Your task to perform on an android device: Search for duracell triple a on ebay.com, select the first entry, and add it to the cart. Image 0: 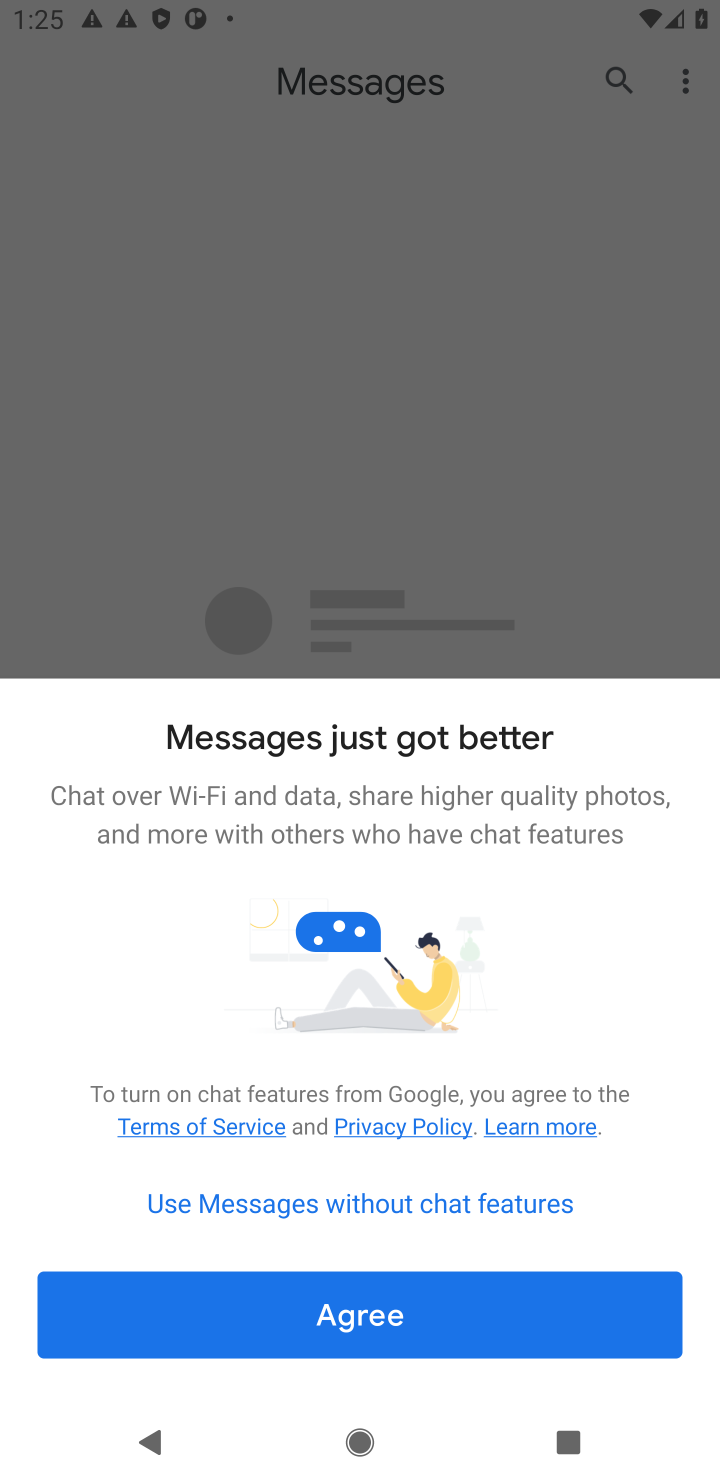
Step 0: press home button
Your task to perform on an android device: Search for duracell triple a on ebay.com, select the first entry, and add it to the cart. Image 1: 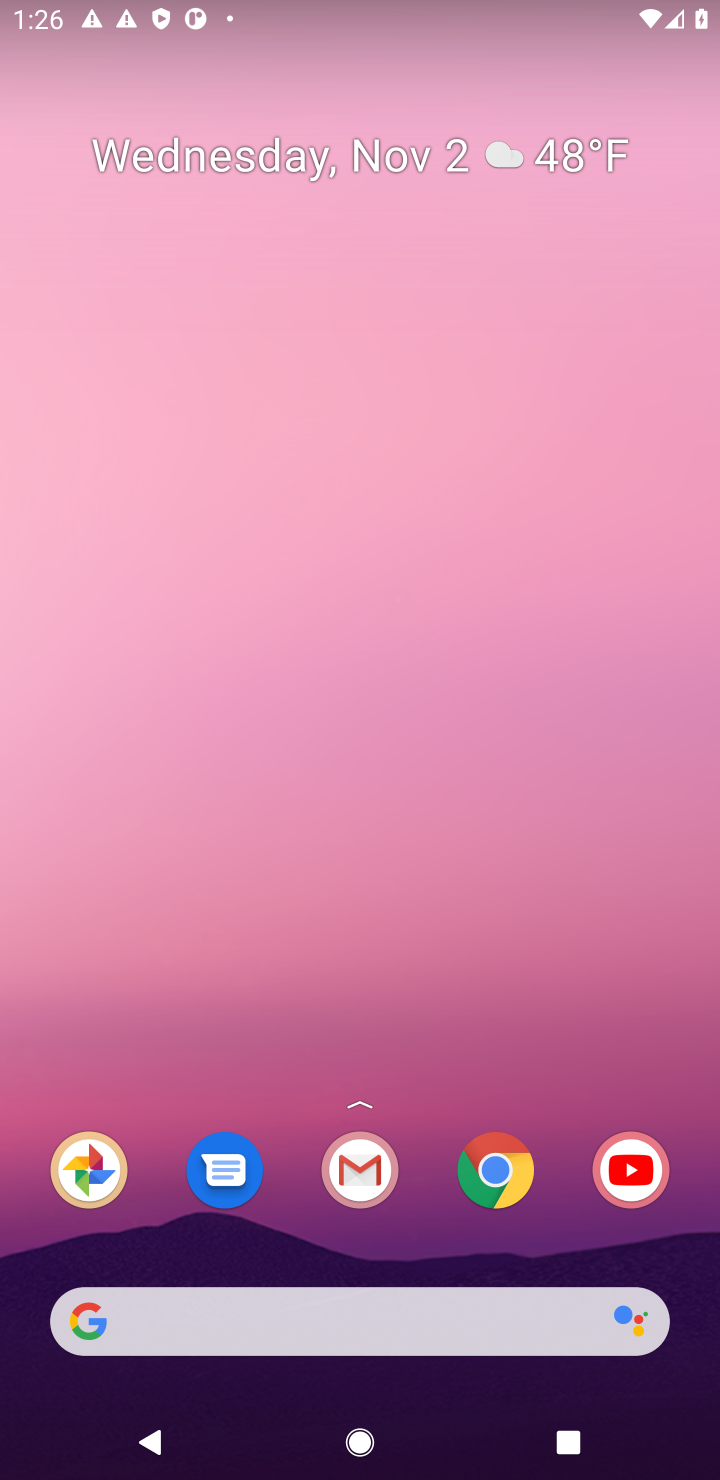
Step 1: click (501, 1177)
Your task to perform on an android device: Search for duracell triple a on ebay.com, select the first entry, and add it to the cart. Image 2: 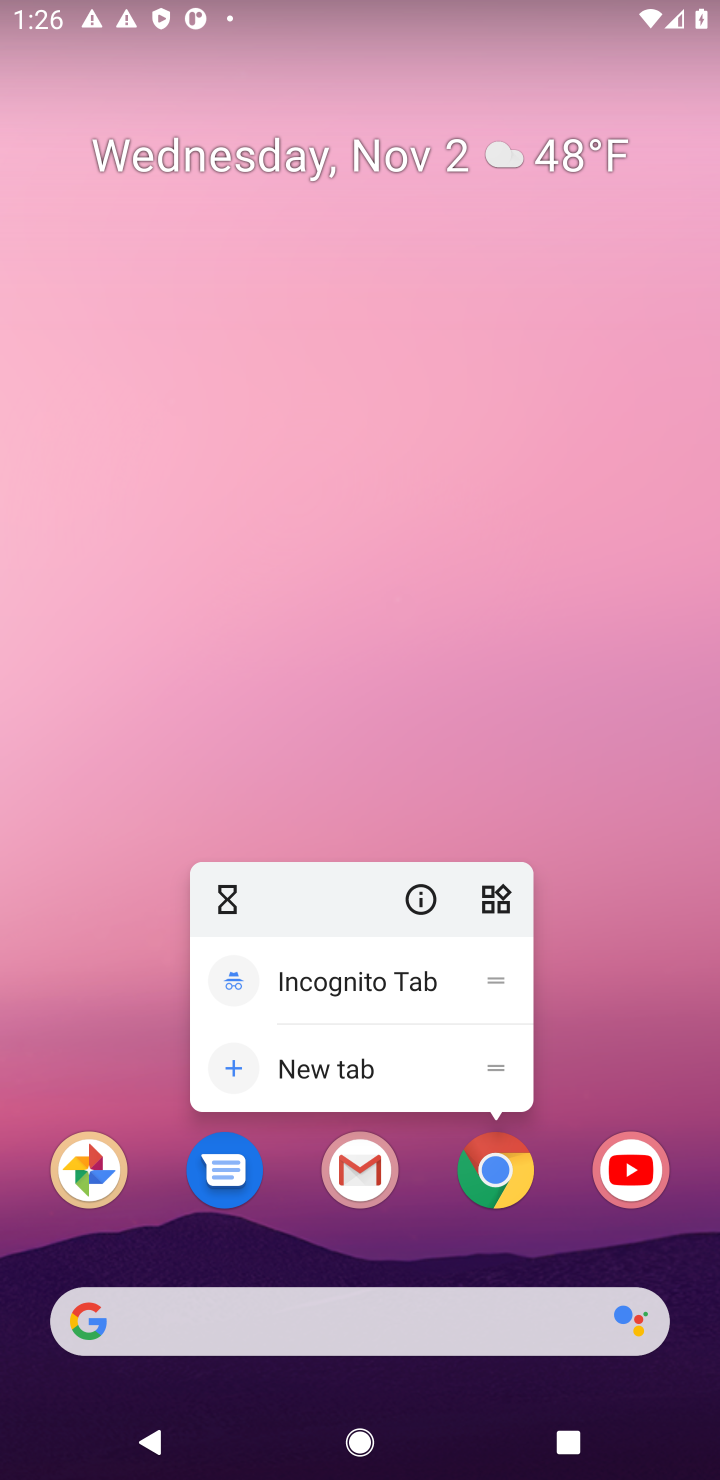
Step 2: click (477, 1144)
Your task to perform on an android device: Search for duracell triple a on ebay.com, select the first entry, and add it to the cart. Image 3: 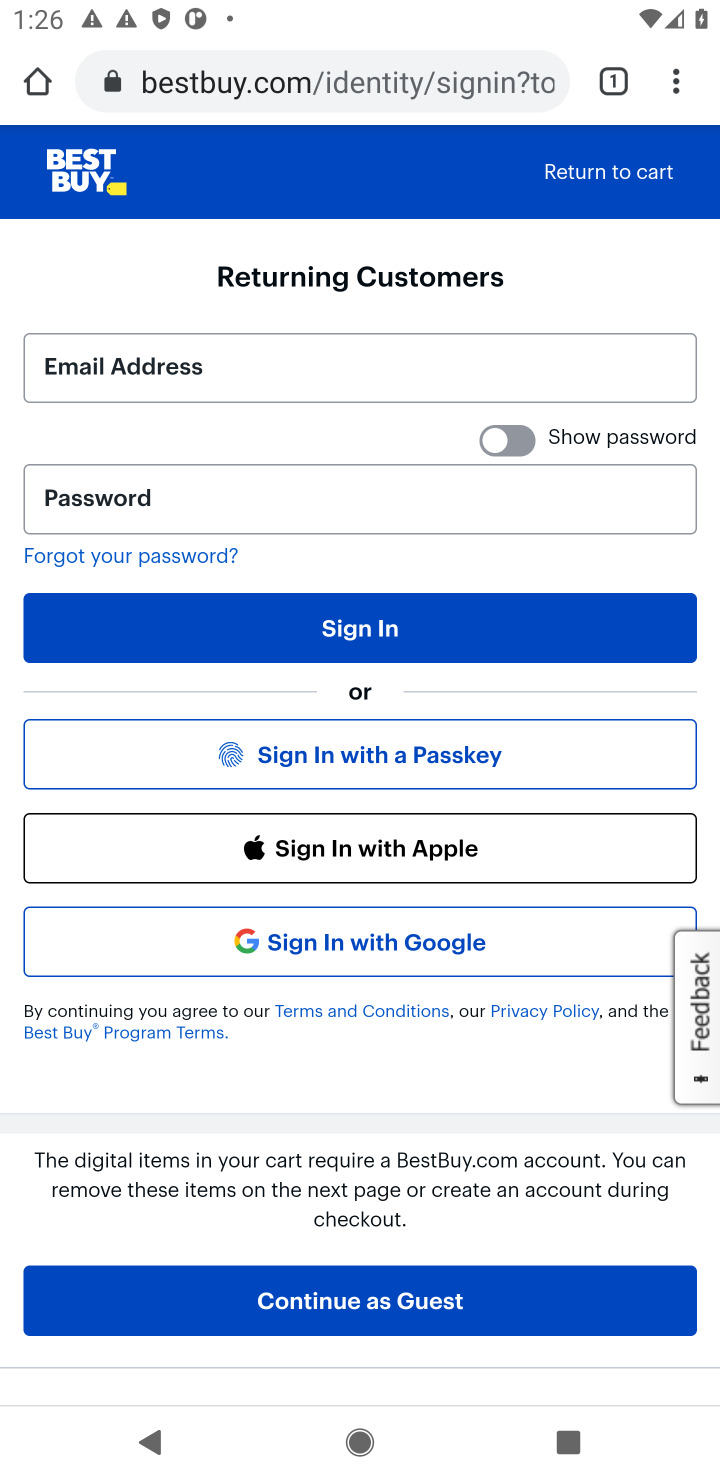
Step 3: click (532, 69)
Your task to perform on an android device: Search for duracell triple a on ebay.com, select the first entry, and add it to the cart. Image 4: 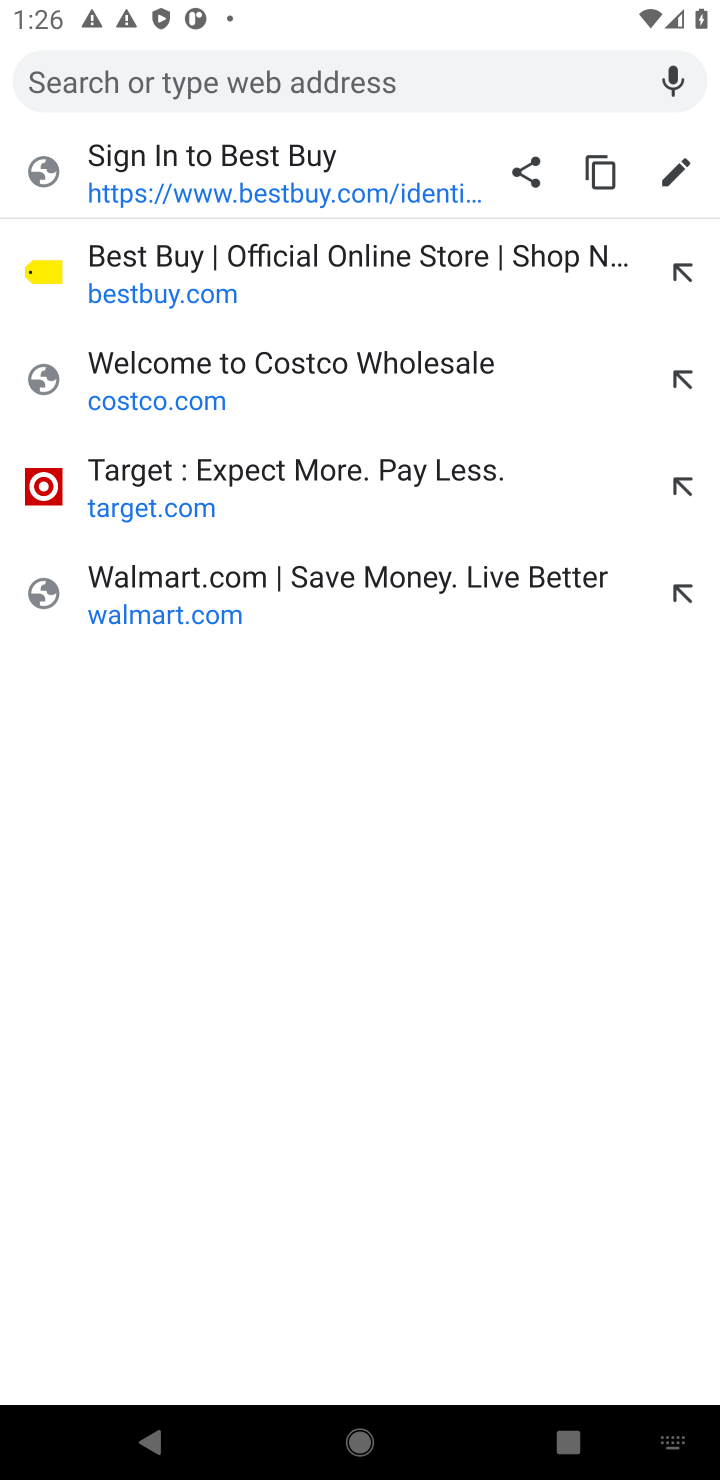
Step 4: type "ebay.com"
Your task to perform on an android device: Search for duracell triple a on ebay.com, select the first entry, and add it to the cart. Image 5: 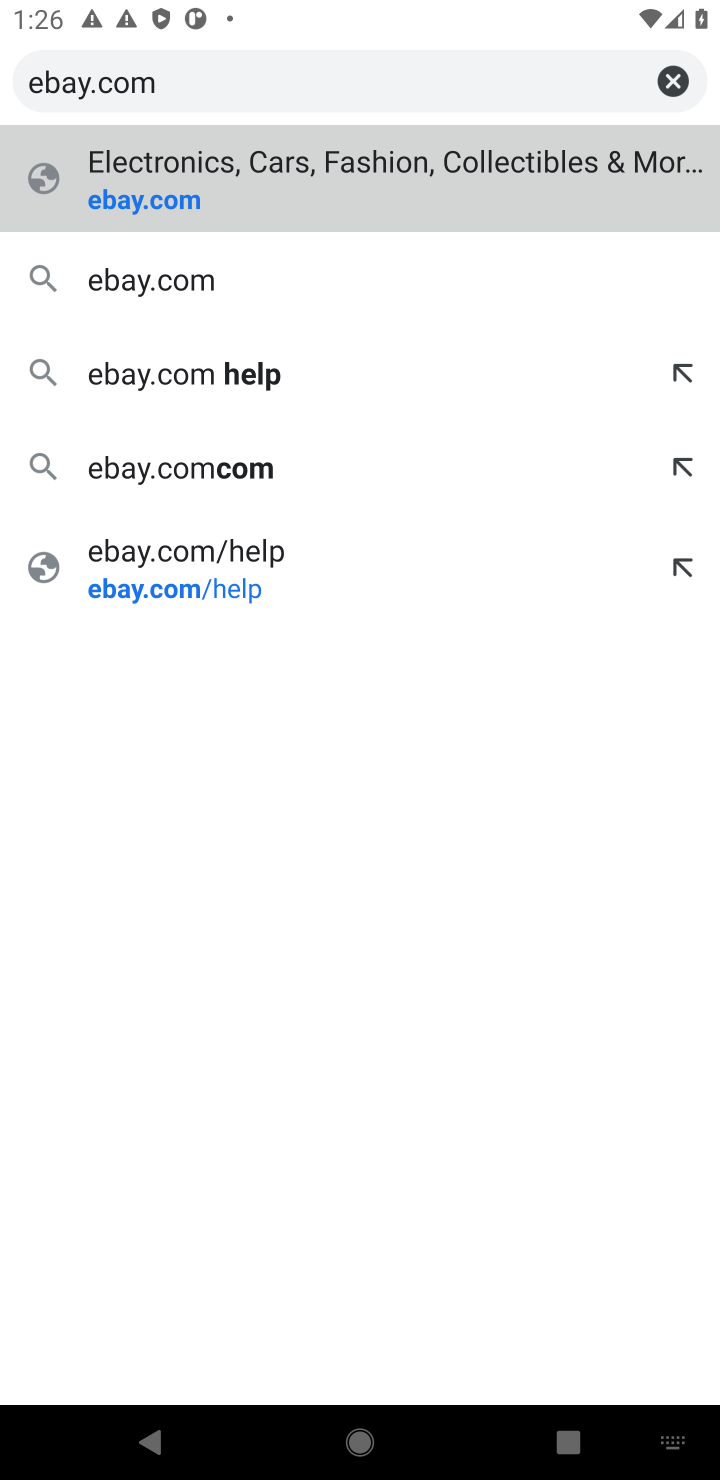
Step 5: click (424, 203)
Your task to perform on an android device: Search for duracell triple a on ebay.com, select the first entry, and add it to the cart. Image 6: 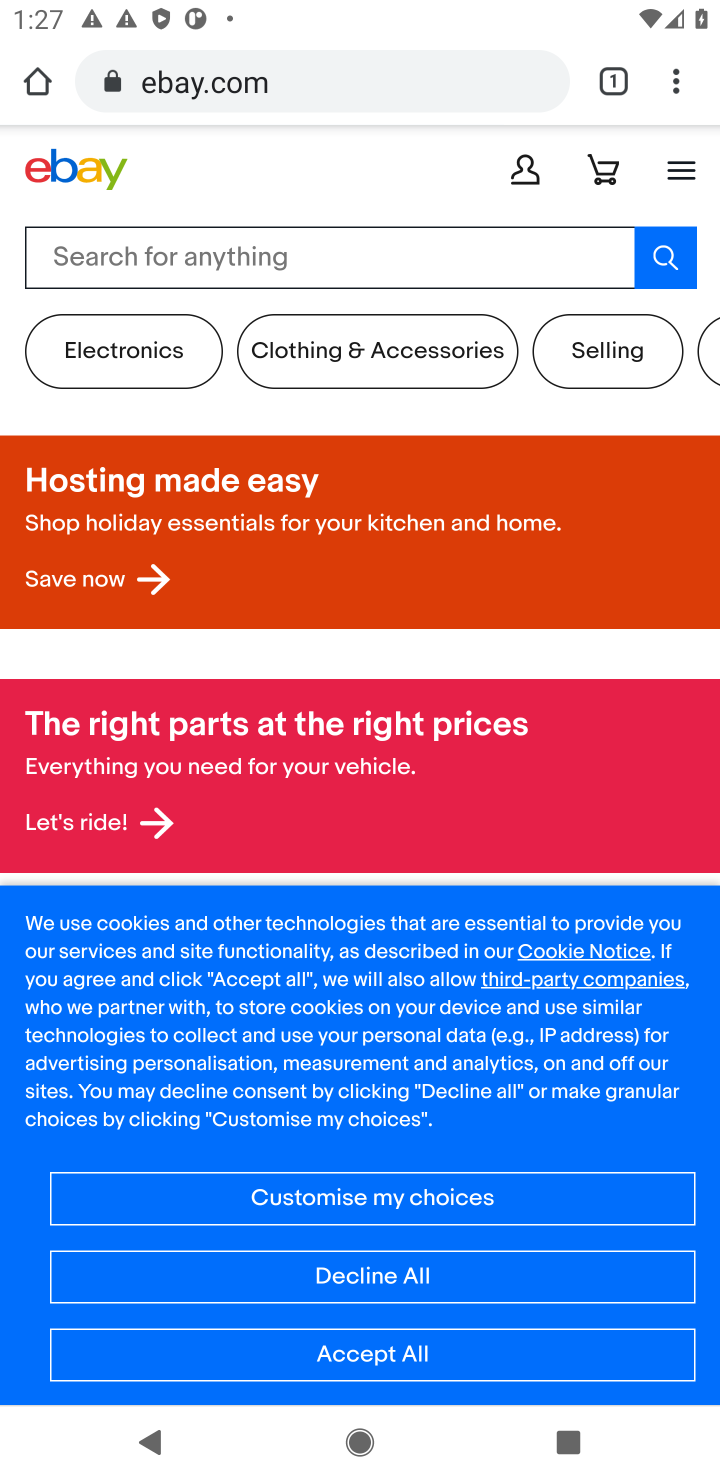
Step 6: click (376, 267)
Your task to perform on an android device: Search for duracell triple a on ebay.com, select the first entry, and add it to the cart. Image 7: 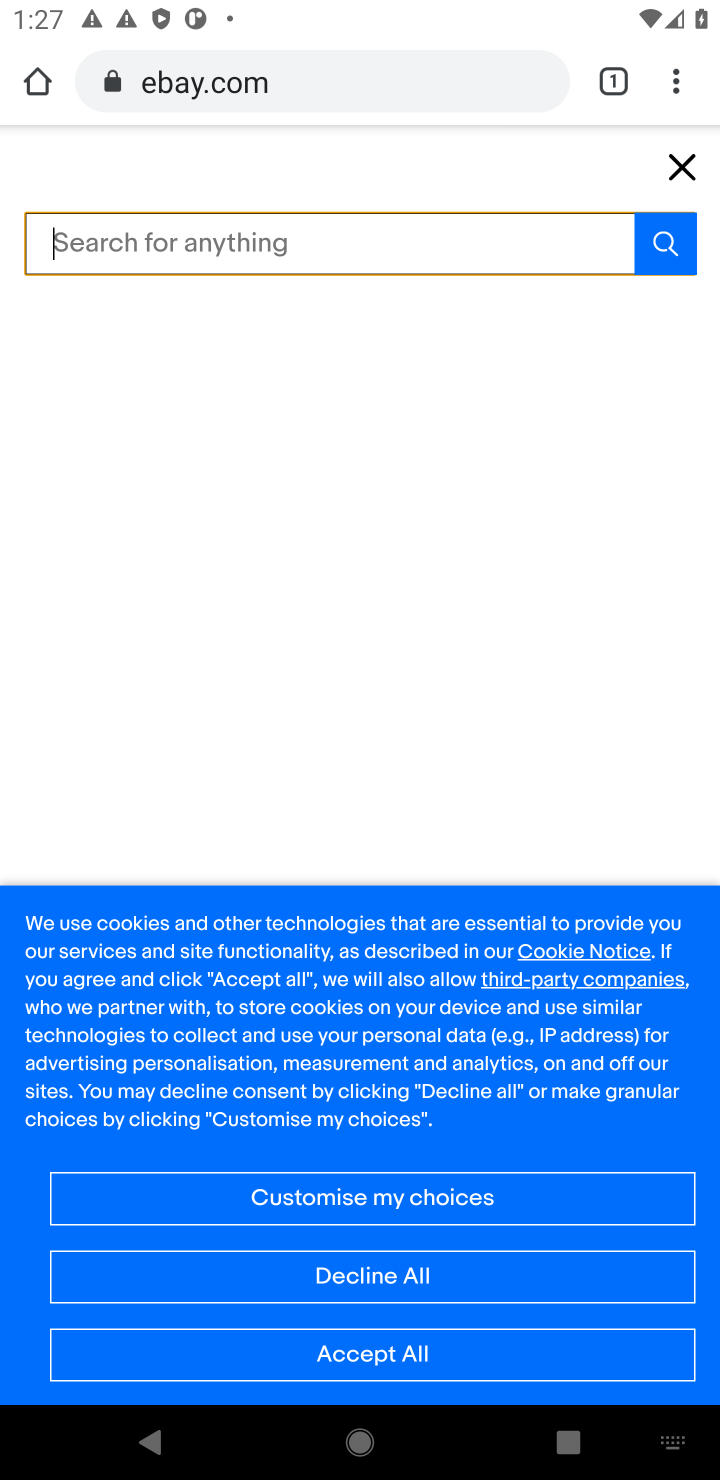
Step 7: type "duracell triple"
Your task to perform on an android device: Search for duracell triple a on ebay.com, select the first entry, and add it to the cart. Image 8: 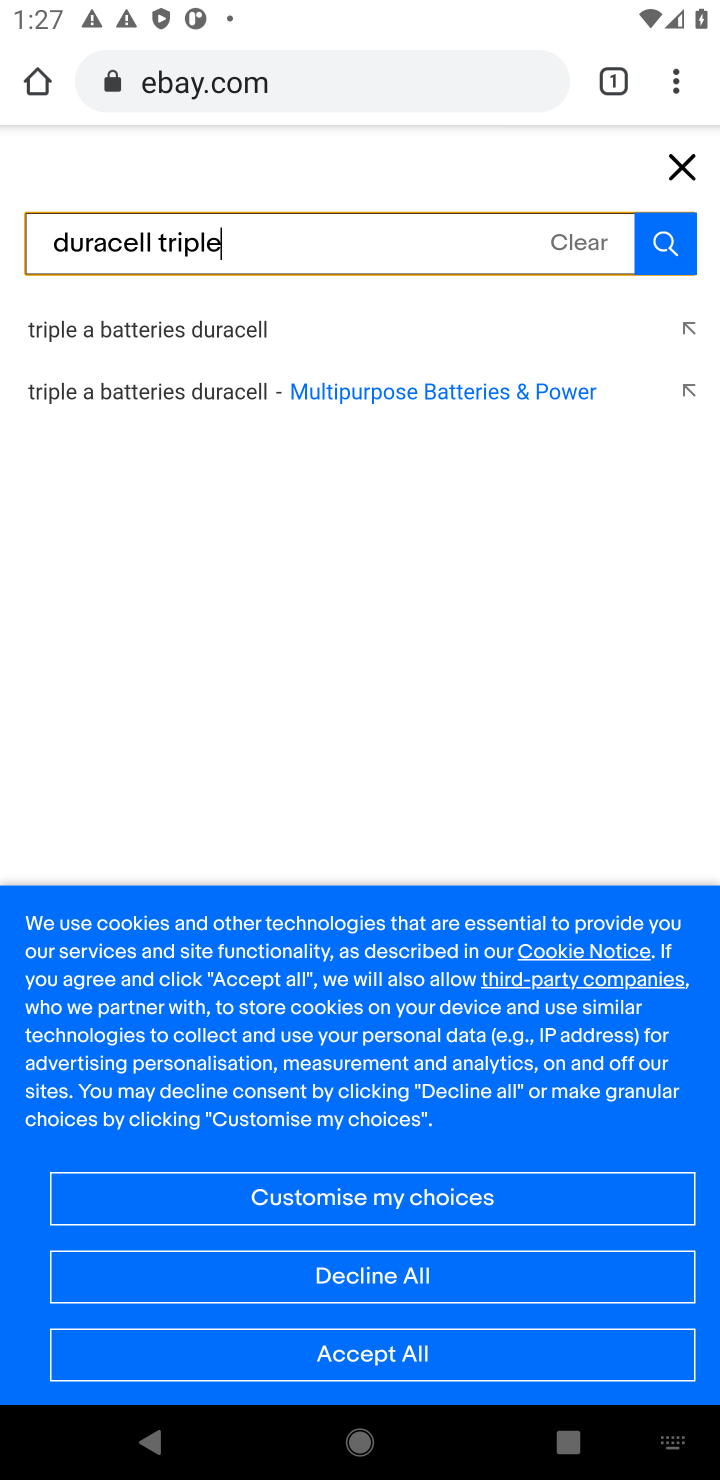
Step 8: click (662, 244)
Your task to perform on an android device: Search for duracell triple a on ebay.com, select the first entry, and add it to the cart. Image 9: 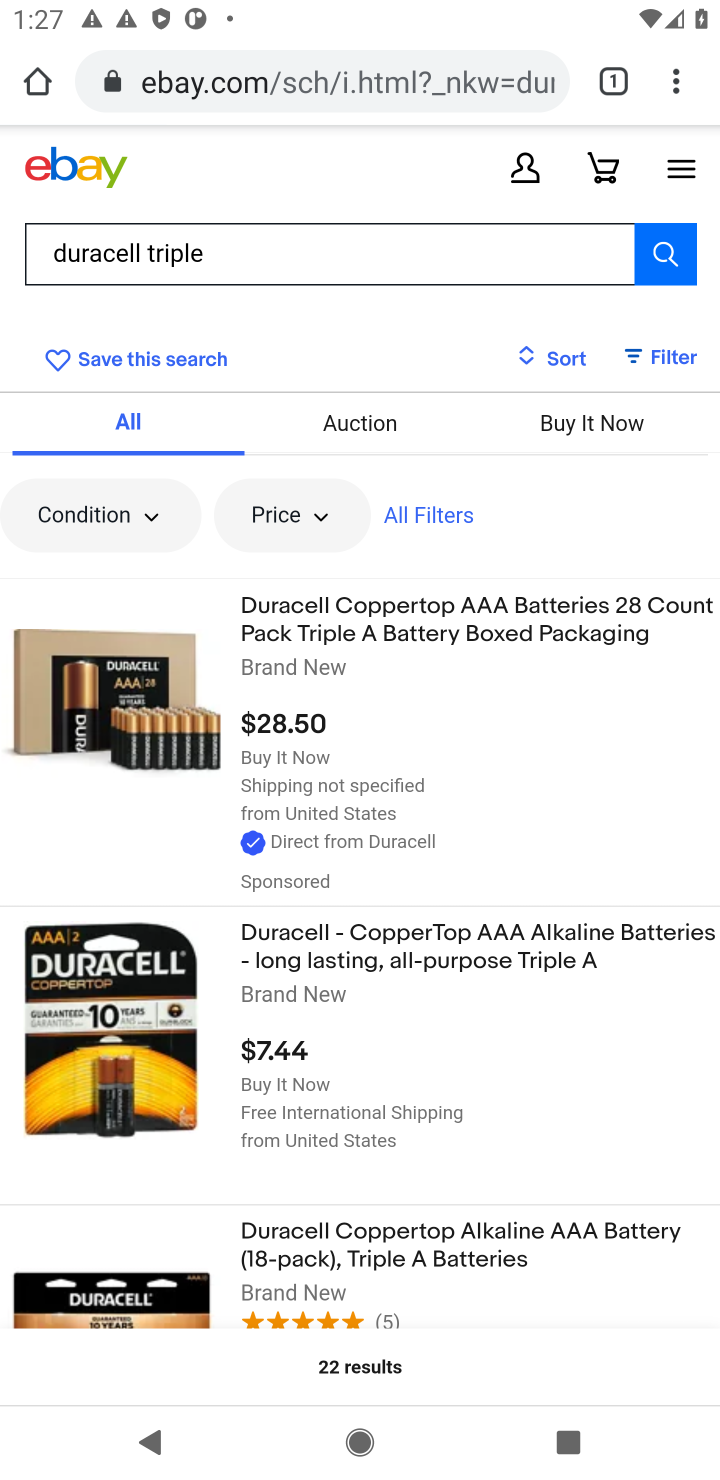
Step 9: click (319, 641)
Your task to perform on an android device: Search for duracell triple a on ebay.com, select the first entry, and add it to the cart. Image 10: 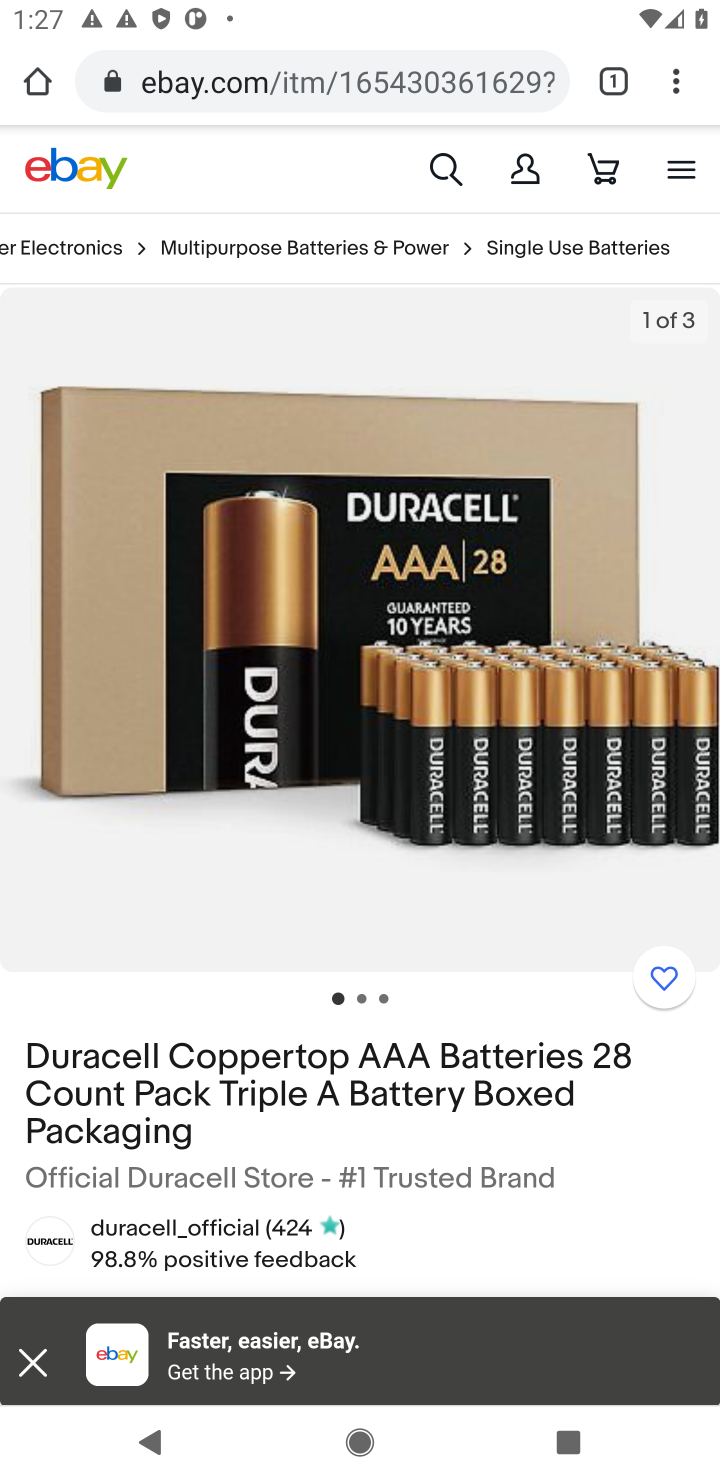
Step 10: drag from (481, 931) to (492, 439)
Your task to perform on an android device: Search for duracell triple a on ebay.com, select the first entry, and add it to the cart. Image 11: 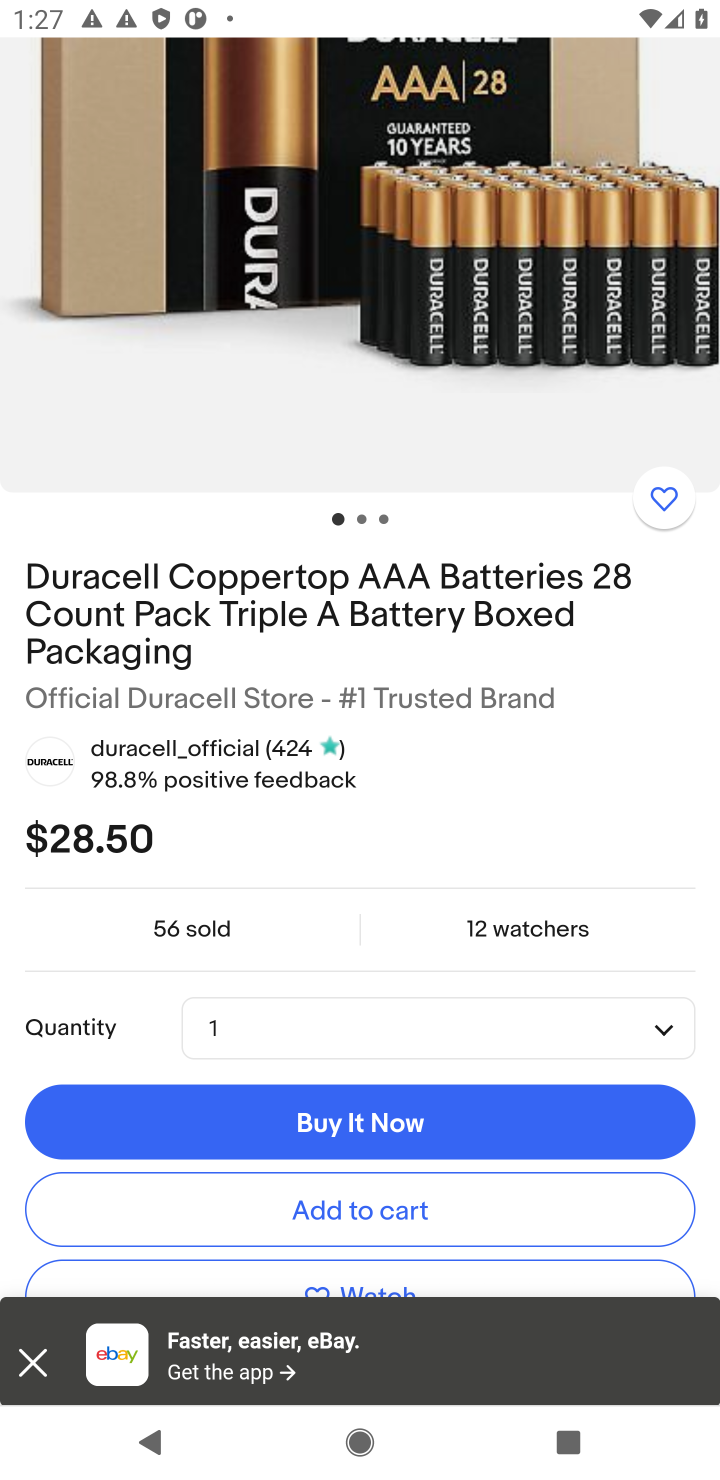
Step 11: click (501, 1208)
Your task to perform on an android device: Search for duracell triple a on ebay.com, select the first entry, and add it to the cart. Image 12: 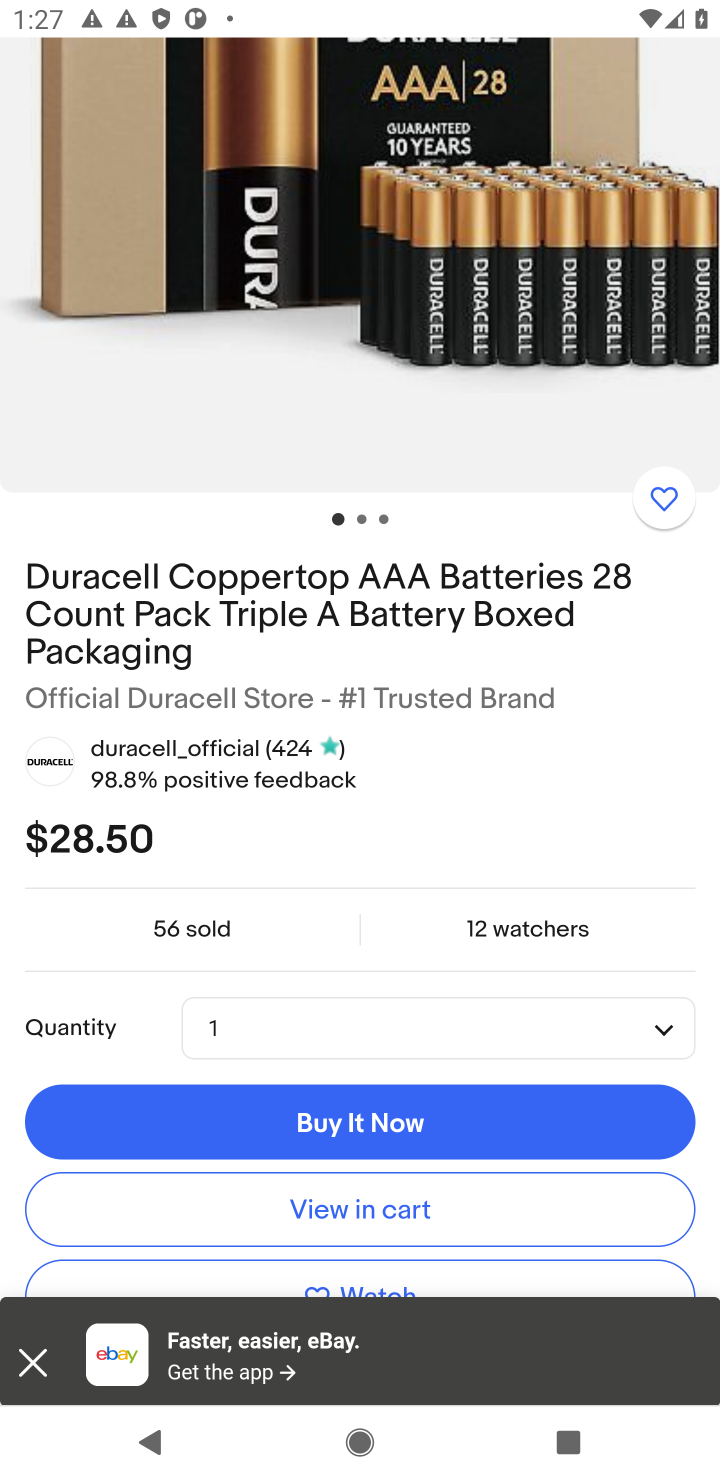
Step 12: task complete